Your task to perform on an android device: Open accessibility settings Image 0: 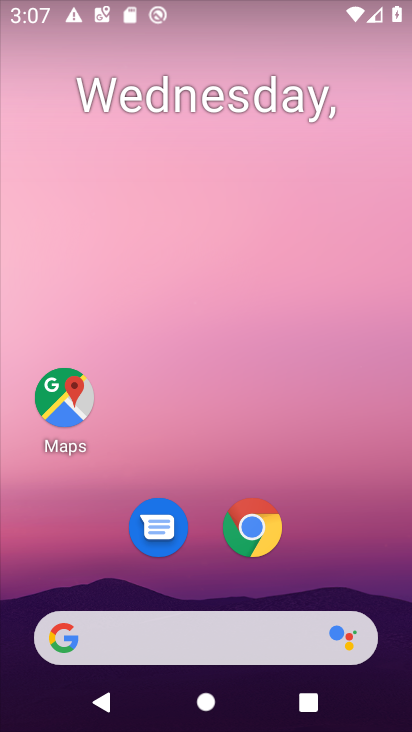
Step 0: drag from (319, 528) to (290, 53)
Your task to perform on an android device: Open accessibility settings Image 1: 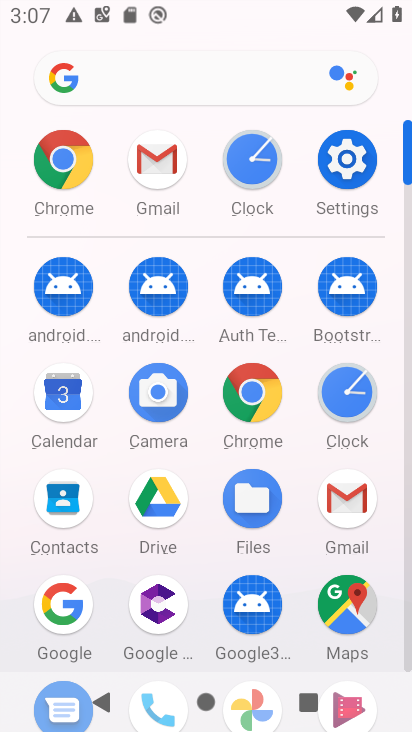
Step 1: click (346, 155)
Your task to perform on an android device: Open accessibility settings Image 2: 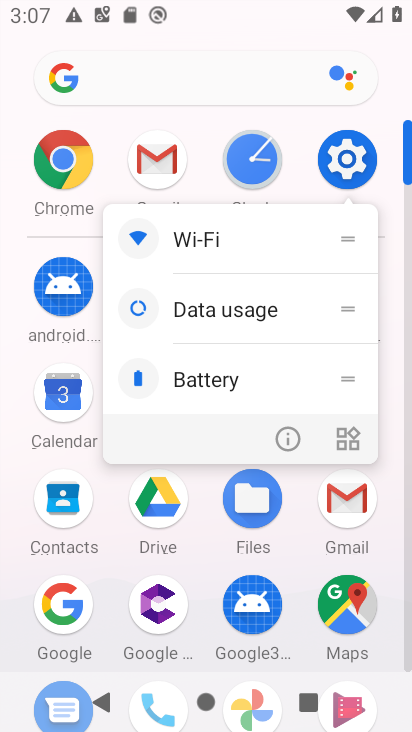
Step 2: click (200, 571)
Your task to perform on an android device: Open accessibility settings Image 3: 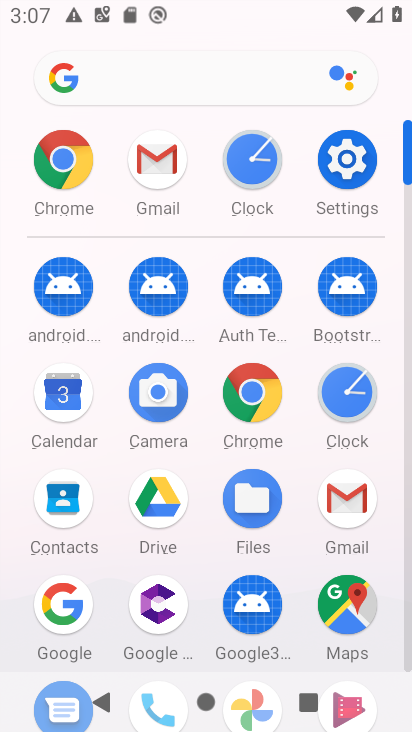
Step 3: drag from (200, 571) to (282, 174)
Your task to perform on an android device: Open accessibility settings Image 4: 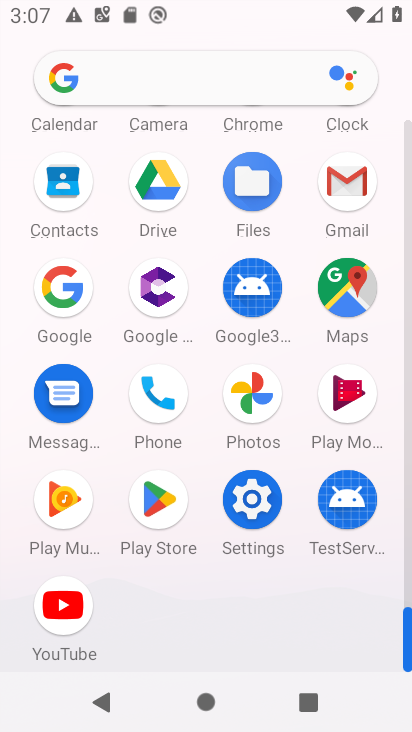
Step 4: click (249, 508)
Your task to perform on an android device: Open accessibility settings Image 5: 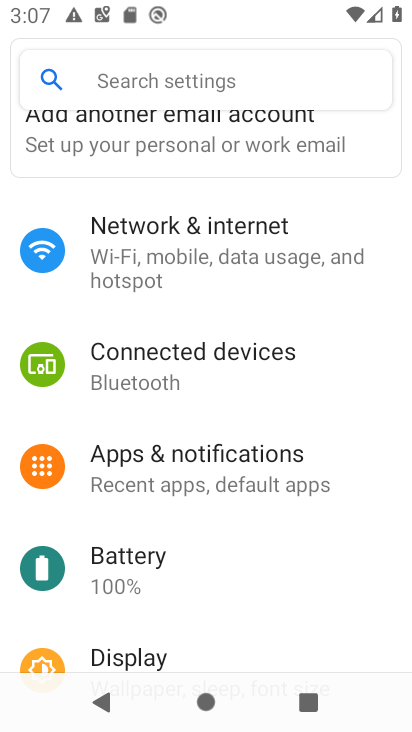
Step 5: drag from (333, 556) to (345, 159)
Your task to perform on an android device: Open accessibility settings Image 6: 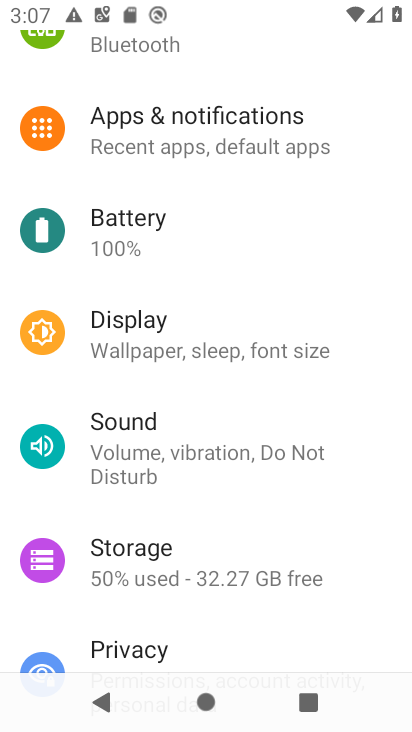
Step 6: drag from (343, 539) to (336, 162)
Your task to perform on an android device: Open accessibility settings Image 7: 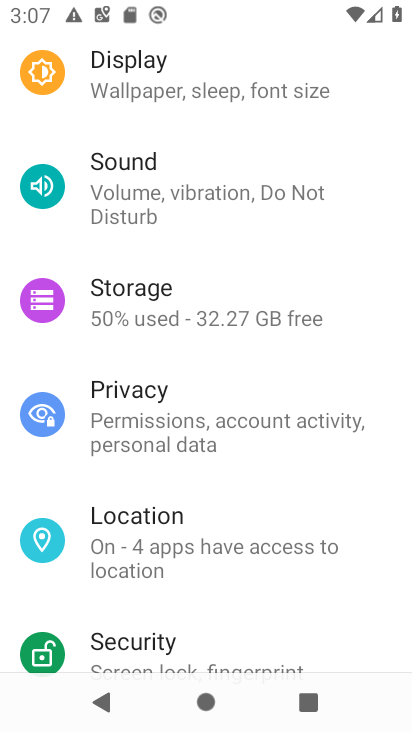
Step 7: drag from (282, 625) to (286, 187)
Your task to perform on an android device: Open accessibility settings Image 8: 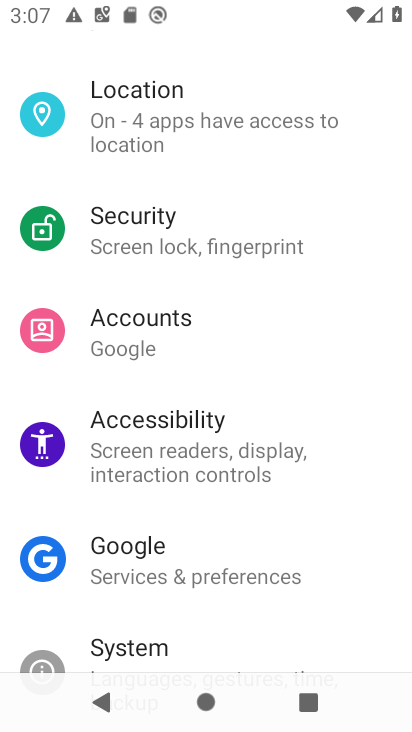
Step 8: click (181, 456)
Your task to perform on an android device: Open accessibility settings Image 9: 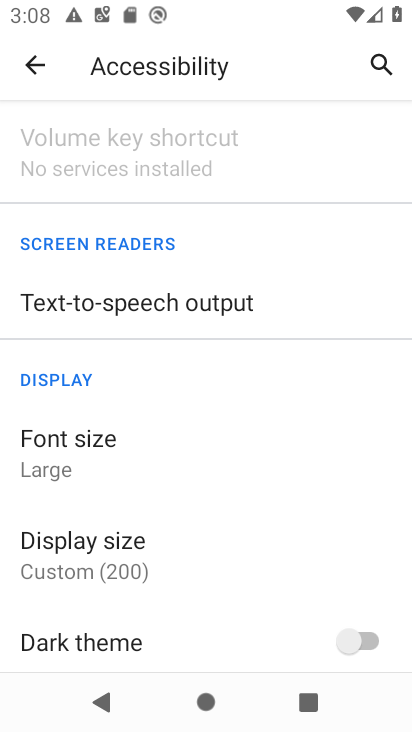
Step 9: task complete